Your task to perform on an android device: toggle data saver in the chrome app Image 0: 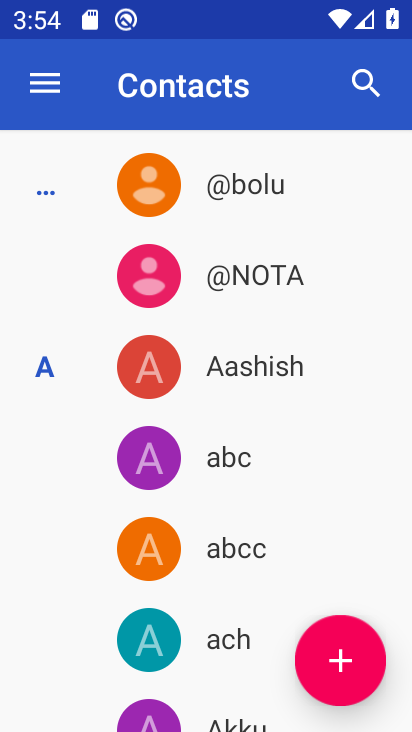
Step 0: press back button
Your task to perform on an android device: toggle data saver in the chrome app Image 1: 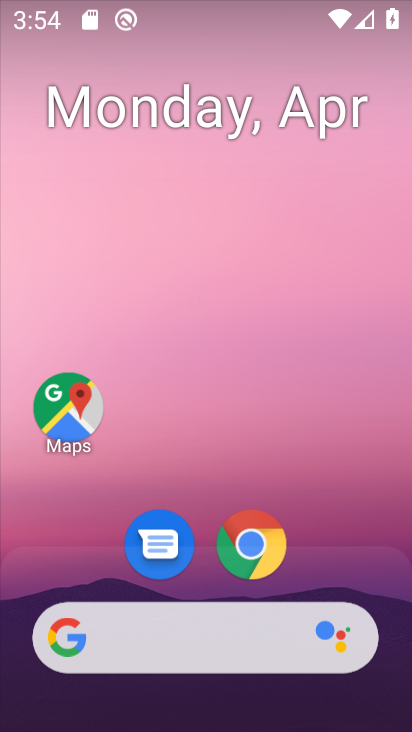
Step 1: drag from (149, 411) to (223, 116)
Your task to perform on an android device: toggle data saver in the chrome app Image 2: 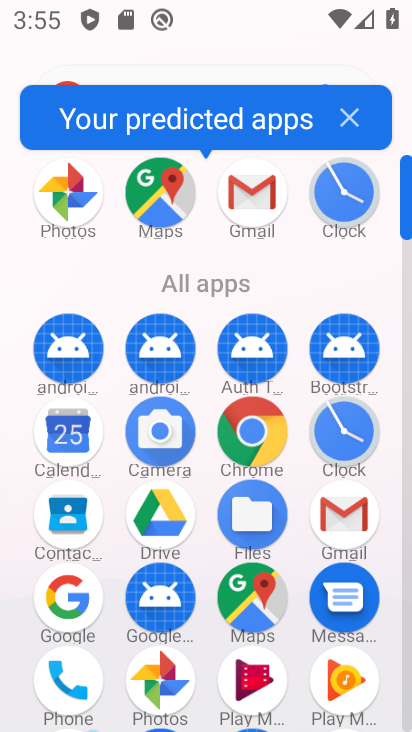
Step 2: click (251, 434)
Your task to perform on an android device: toggle data saver in the chrome app Image 3: 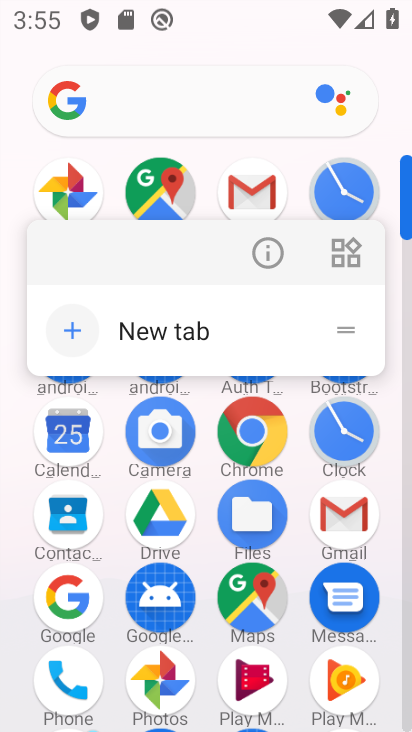
Step 3: click (256, 438)
Your task to perform on an android device: toggle data saver in the chrome app Image 4: 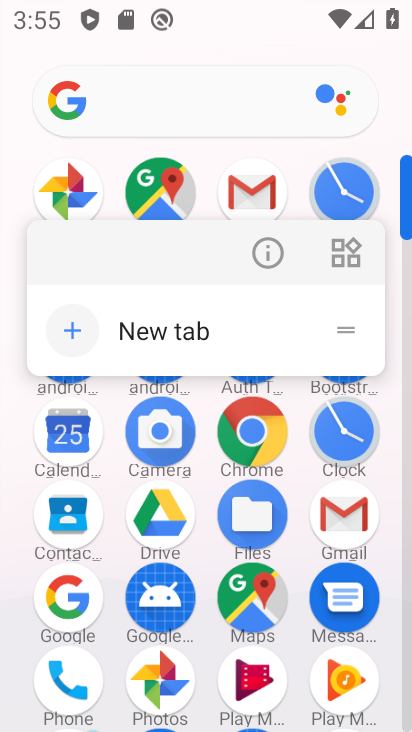
Step 4: click (251, 432)
Your task to perform on an android device: toggle data saver in the chrome app Image 5: 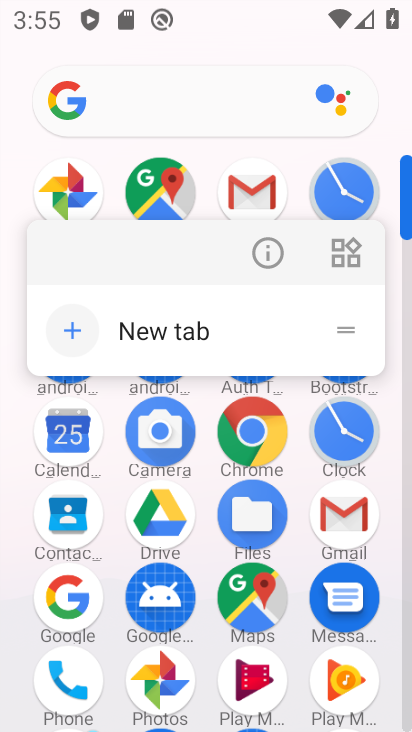
Step 5: click (253, 435)
Your task to perform on an android device: toggle data saver in the chrome app Image 6: 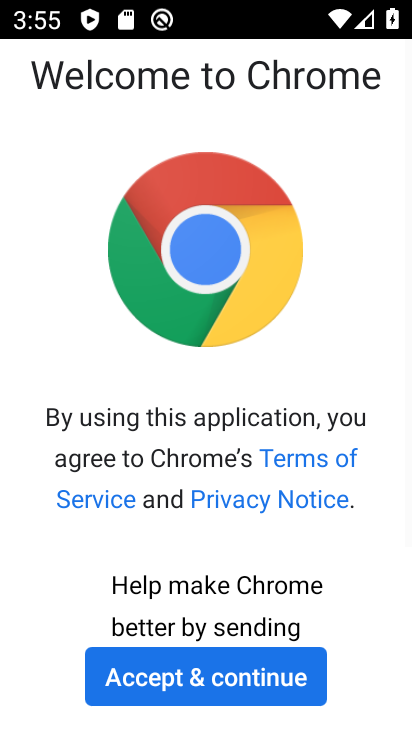
Step 6: click (229, 684)
Your task to perform on an android device: toggle data saver in the chrome app Image 7: 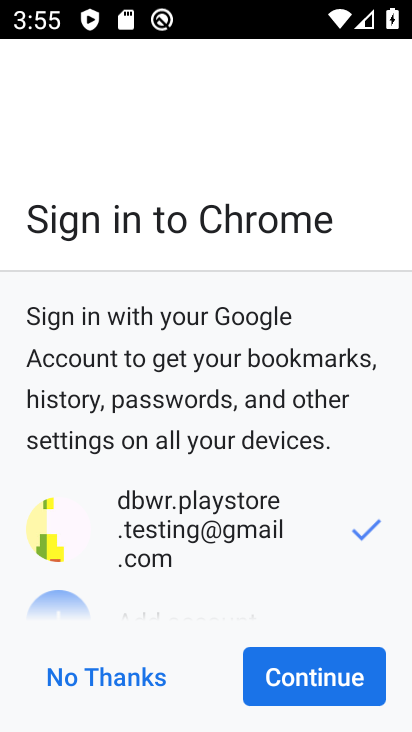
Step 7: click (288, 697)
Your task to perform on an android device: toggle data saver in the chrome app Image 8: 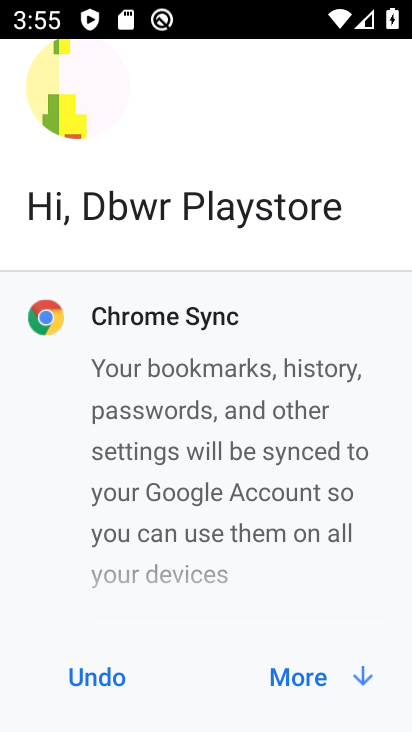
Step 8: click (288, 689)
Your task to perform on an android device: toggle data saver in the chrome app Image 9: 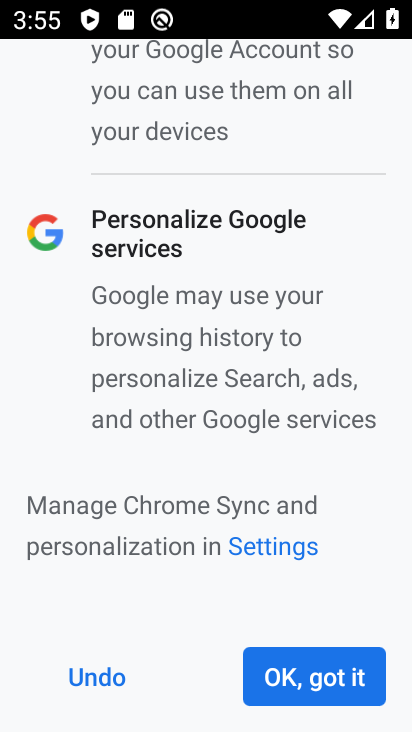
Step 9: click (290, 685)
Your task to perform on an android device: toggle data saver in the chrome app Image 10: 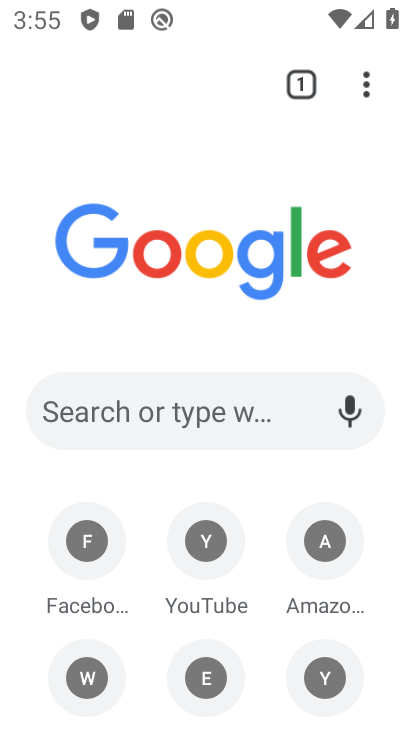
Step 10: drag from (370, 81) to (211, 601)
Your task to perform on an android device: toggle data saver in the chrome app Image 11: 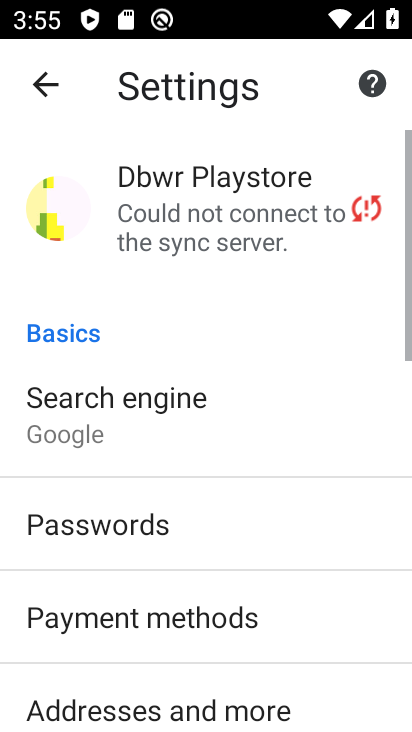
Step 11: drag from (203, 694) to (354, 213)
Your task to perform on an android device: toggle data saver in the chrome app Image 12: 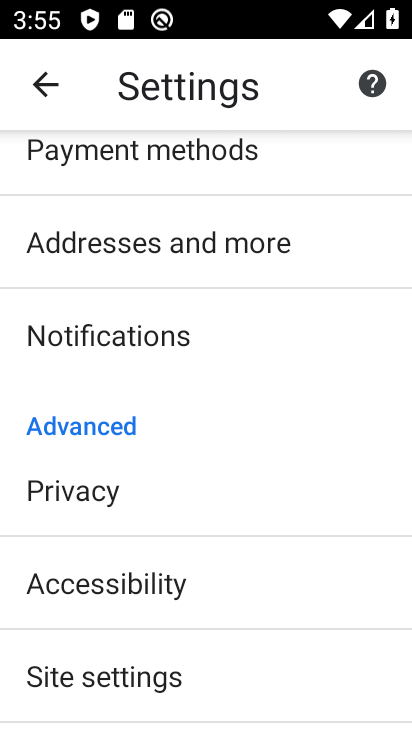
Step 12: drag from (136, 634) to (242, 249)
Your task to perform on an android device: toggle data saver in the chrome app Image 13: 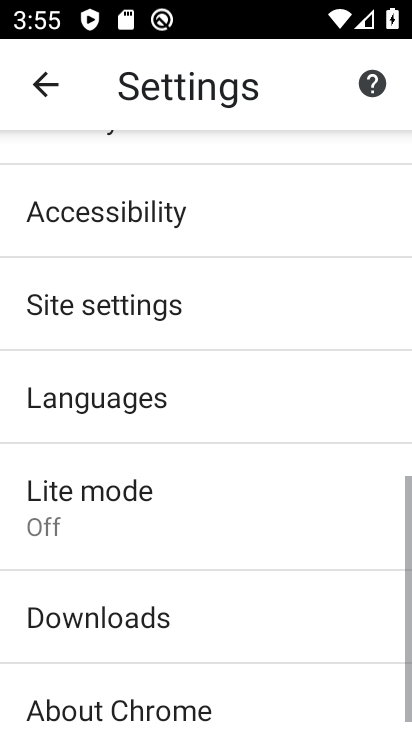
Step 13: click (192, 493)
Your task to perform on an android device: toggle data saver in the chrome app Image 14: 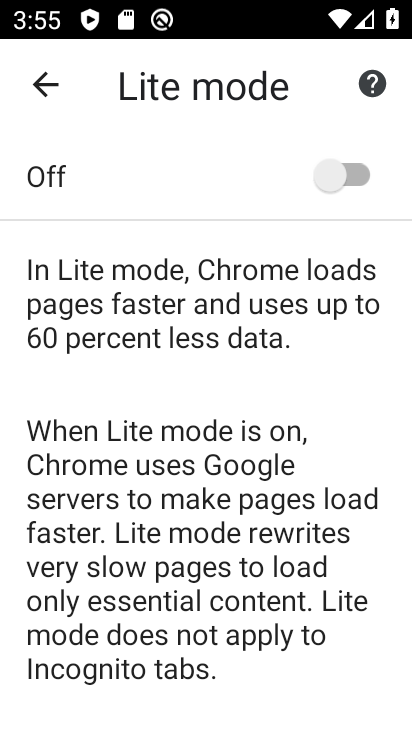
Step 14: click (374, 176)
Your task to perform on an android device: toggle data saver in the chrome app Image 15: 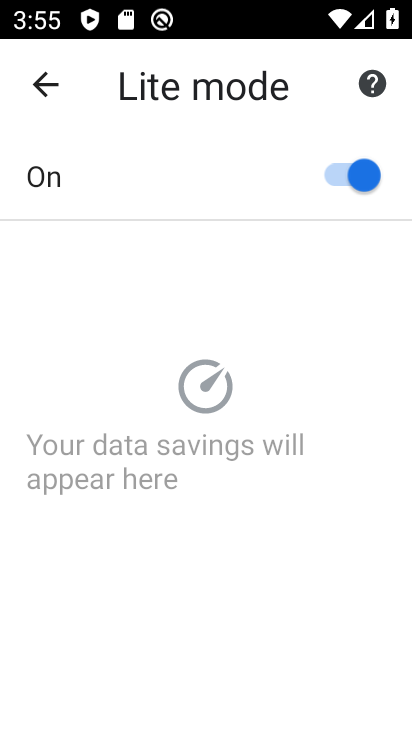
Step 15: task complete